Your task to perform on an android device: allow cookies in the chrome app Image 0: 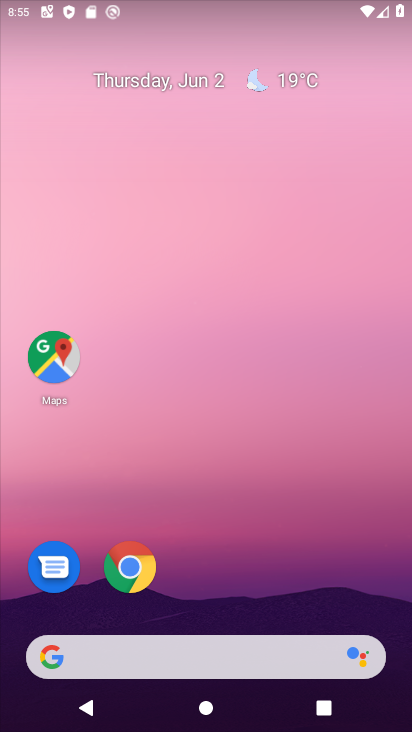
Step 0: press home button
Your task to perform on an android device: allow cookies in the chrome app Image 1: 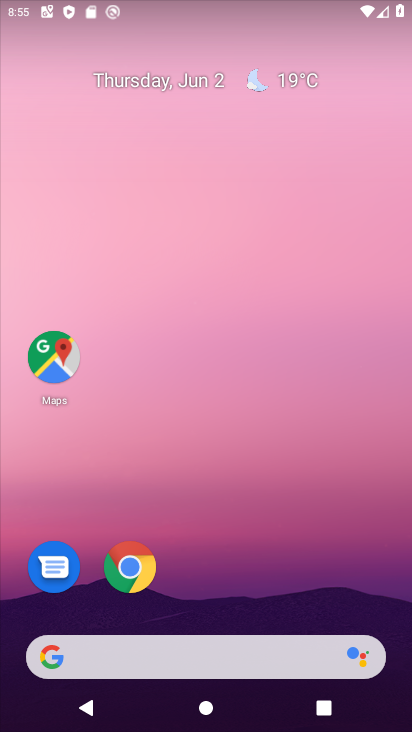
Step 1: click (130, 561)
Your task to perform on an android device: allow cookies in the chrome app Image 2: 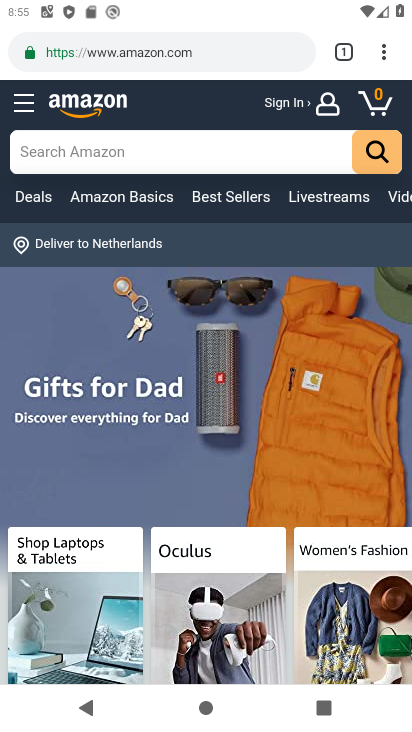
Step 2: click (386, 53)
Your task to perform on an android device: allow cookies in the chrome app Image 3: 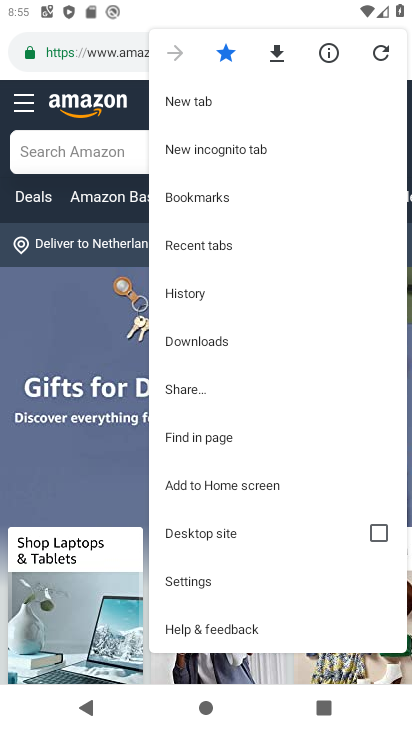
Step 3: click (222, 584)
Your task to perform on an android device: allow cookies in the chrome app Image 4: 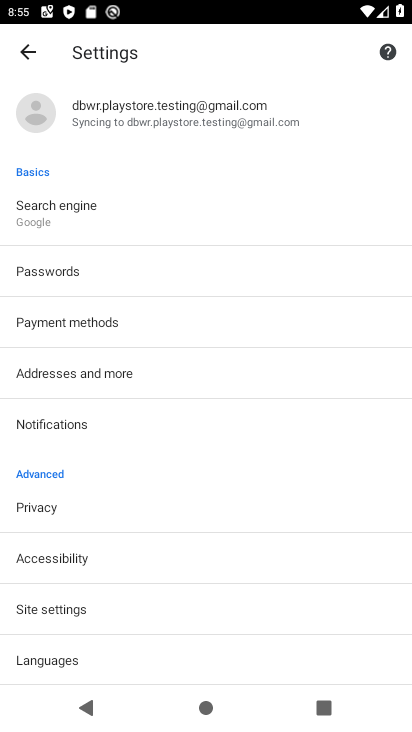
Step 4: click (106, 611)
Your task to perform on an android device: allow cookies in the chrome app Image 5: 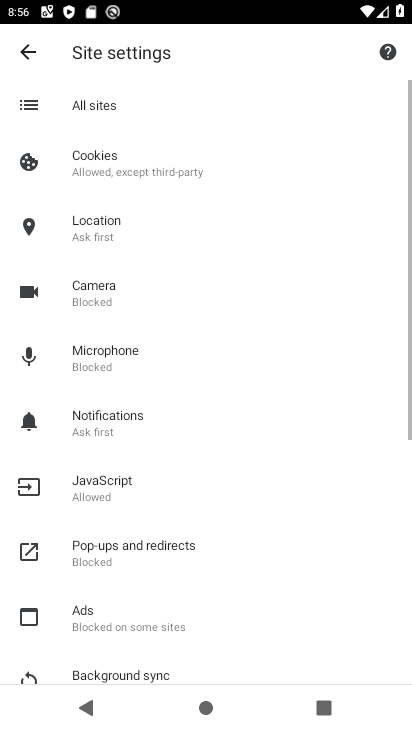
Step 5: click (120, 160)
Your task to perform on an android device: allow cookies in the chrome app Image 6: 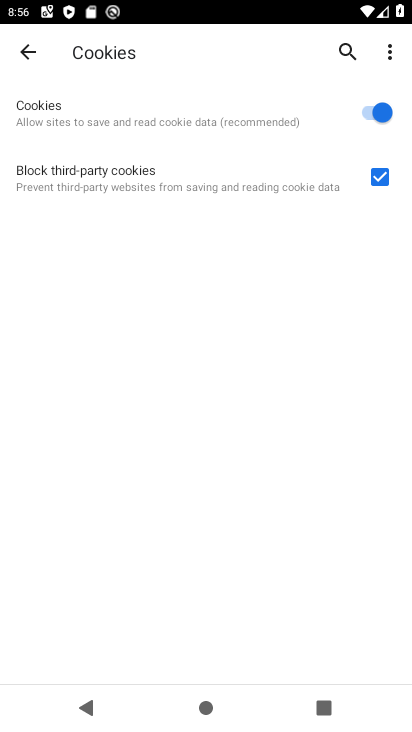
Step 6: task complete